Your task to perform on an android device: toggle notification dots Image 0: 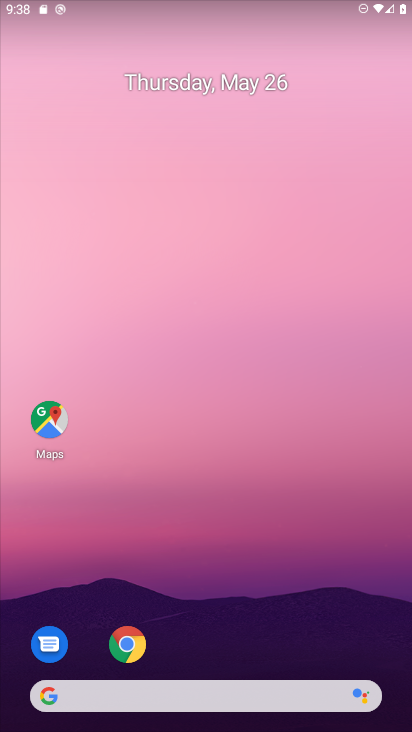
Step 0: drag from (200, 672) to (281, 172)
Your task to perform on an android device: toggle notification dots Image 1: 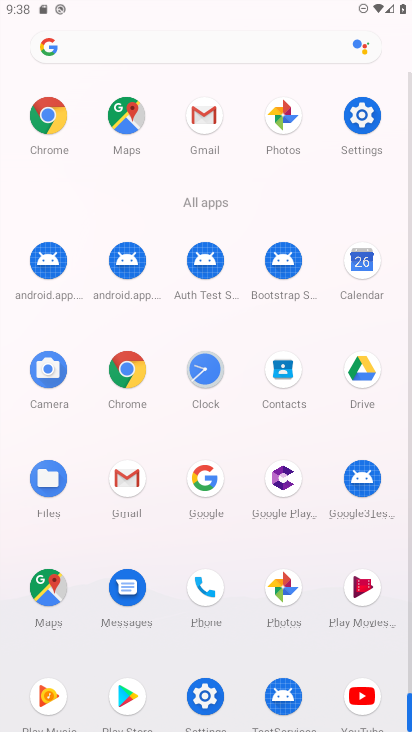
Step 1: drag from (130, 632) to (255, 255)
Your task to perform on an android device: toggle notification dots Image 2: 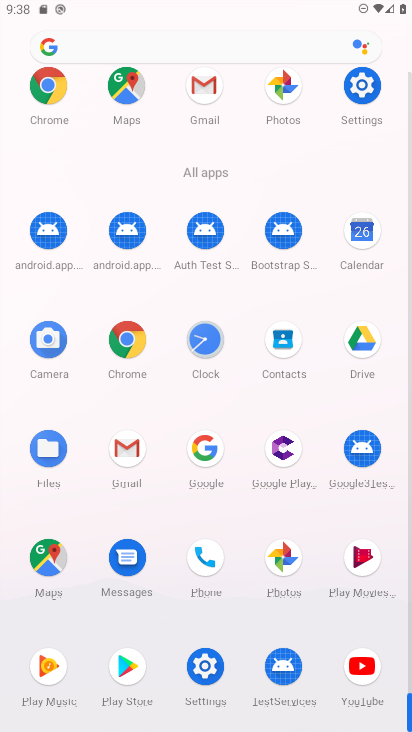
Step 2: click (194, 643)
Your task to perform on an android device: toggle notification dots Image 3: 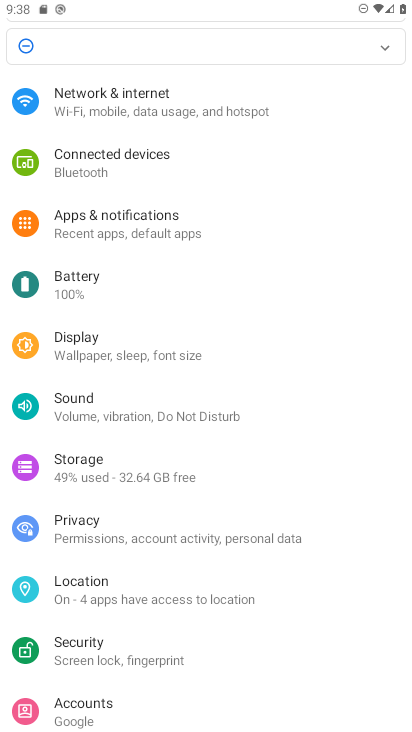
Step 3: click (161, 224)
Your task to perform on an android device: toggle notification dots Image 4: 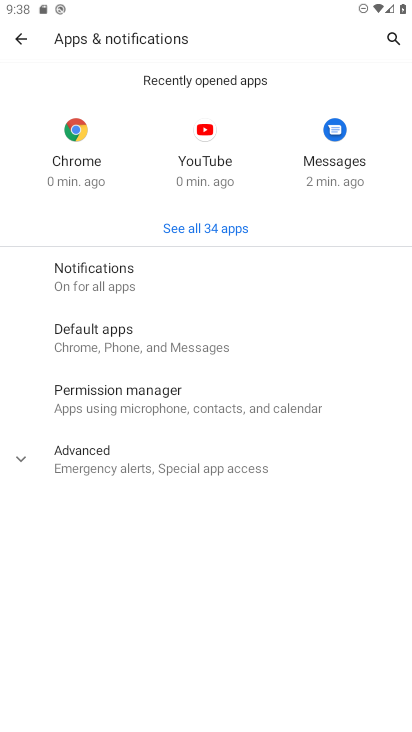
Step 4: click (150, 277)
Your task to perform on an android device: toggle notification dots Image 5: 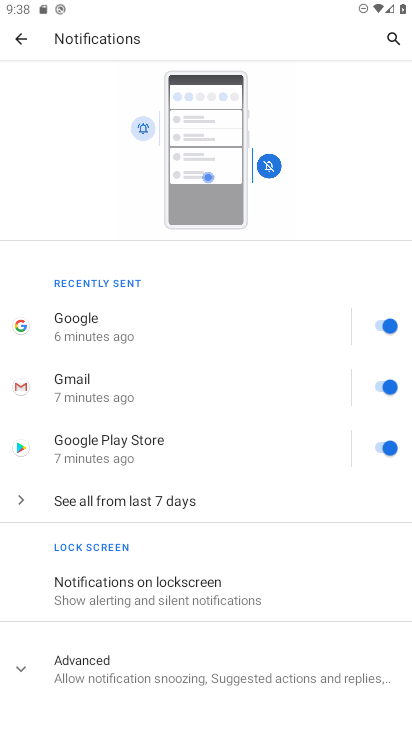
Step 5: drag from (159, 632) to (257, 222)
Your task to perform on an android device: toggle notification dots Image 6: 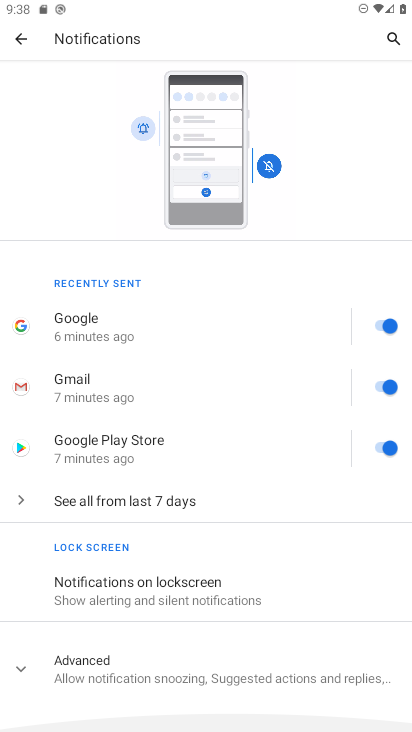
Step 6: click (105, 671)
Your task to perform on an android device: toggle notification dots Image 7: 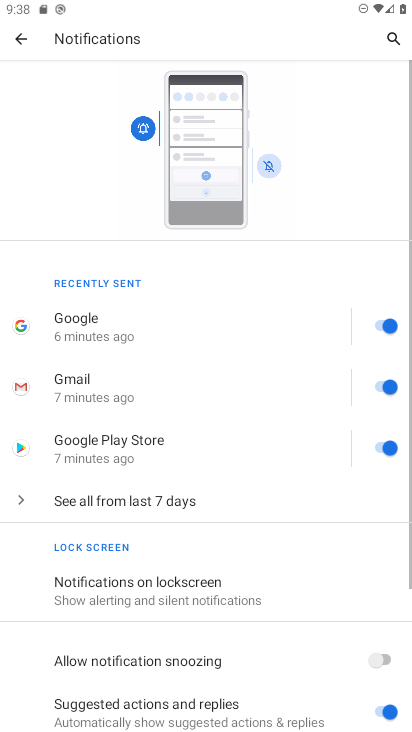
Step 7: drag from (126, 681) to (233, 224)
Your task to perform on an android device: toggle notification dots Image 8: 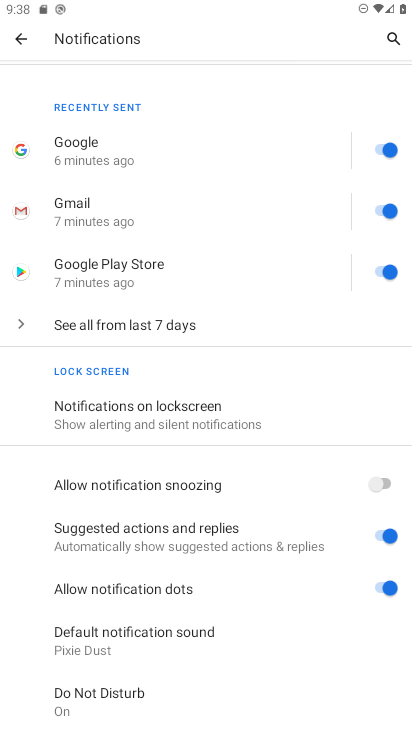
Step 8: click (392, 590)
Your task to perform on an android device: toggle notification dots Image 9: 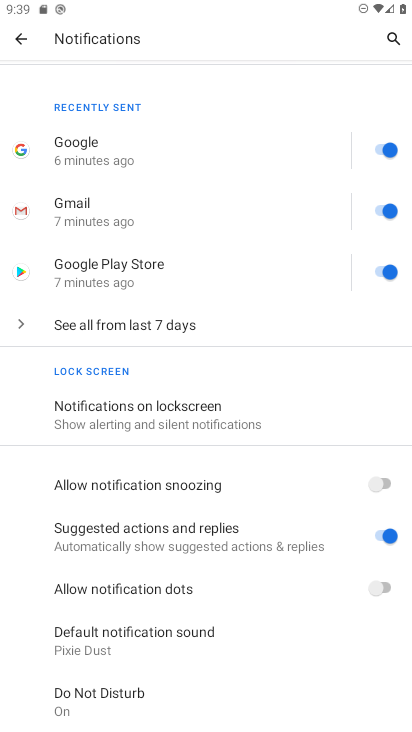
Step 9: task complete